Your task to perform on an android device: Clear the shopping cart on newegg. Add logitech g933 to the cart on newegg Image 0: 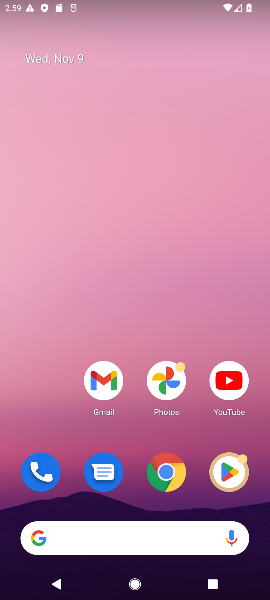
Step 0: click (113, 540)
Your task to perform on an android device: Clear the shopping cart on newegg. Add logitech g933 to the cart on newegg Image 1: 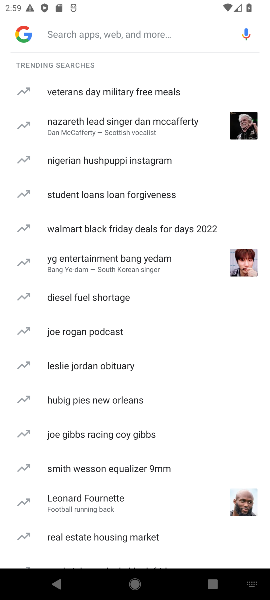
Step 1: type "newegg"
Your task to perform on an android device: Clear the shopping cart on newegg. Add logitech g933 to the cart on newegg Image 2: 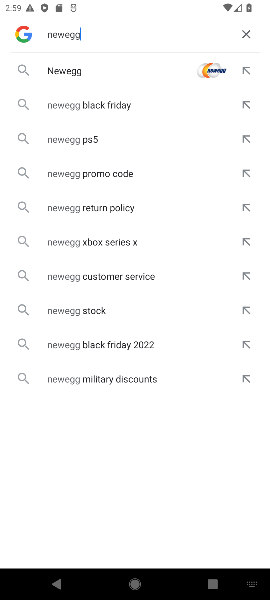
Step 2: click (55, 68)
Your task to perform on an android device: Clear the shopping cart on newegg. Add logitech g933 to the cart on newegg Image 3: 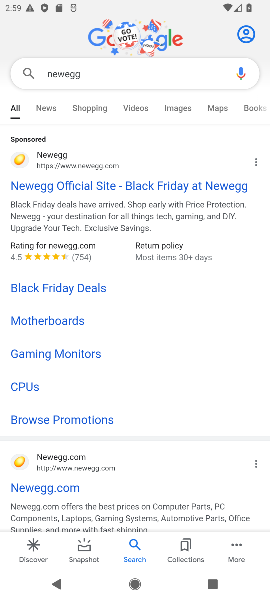
Step 3: click (42, 153)
Your task to perform on an android device: Clear the shopping cart on newegg. Add logitech g933 to the cart on newegg Image 4: 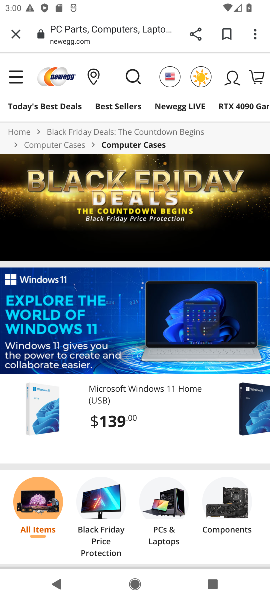
Step 4: click (257, 73)
Your task to perform on an android device: Clear the shopping cart on newegg. Add logitech g933 to the cart on newegg Image 5: 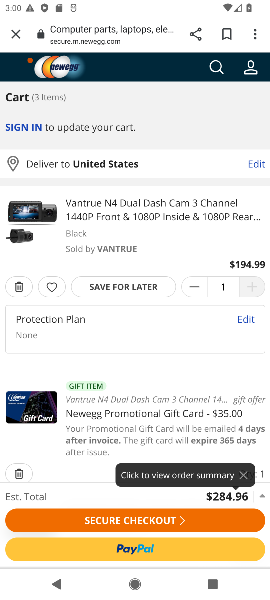
Step 5: click (17, 287)
Your task to perform on an android device: Clear the shopping cart on newegg. Add logitech g933 to the cart on newegg Image 6: 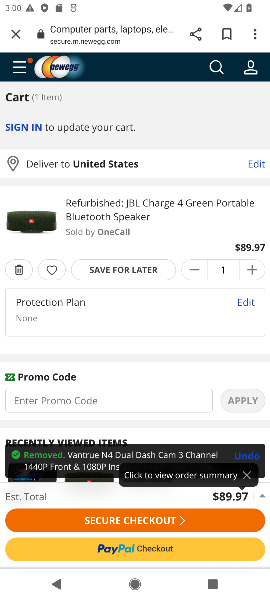
Step 6: click (19, 270)
Your task to perform on an android device: Clear the shopping cart on newegg. Add logitech g933 to the cart on newegg Image 7: 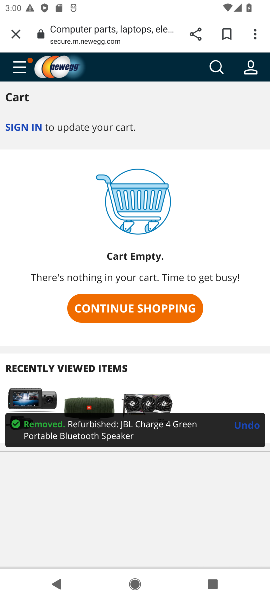
Step 7: click (213, 68)
Your task to perform on an android device: Clear the shopping cart on newegg. Add logitech g933 to the cart on newegg Image 8: 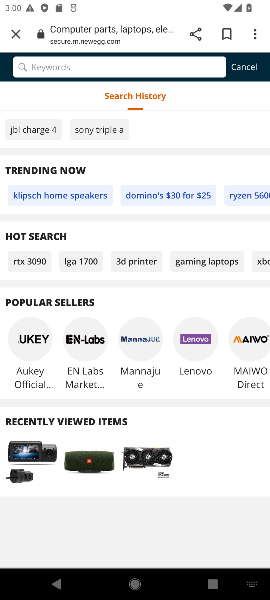
Step 8: type "logitech g933"
Your task to perform on an android device: Clear the shopping cart on newegg. Add logitech g933 to the cart on newegg Image 9: 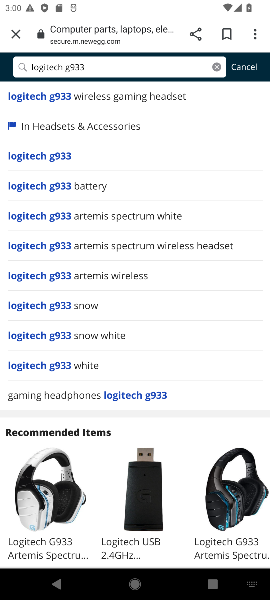
Step 9: click (43, 155)
Your task to perform on an android device: Clear the shopping cart on newegg. Add logitech g933 to the cart on newegg Image 10: 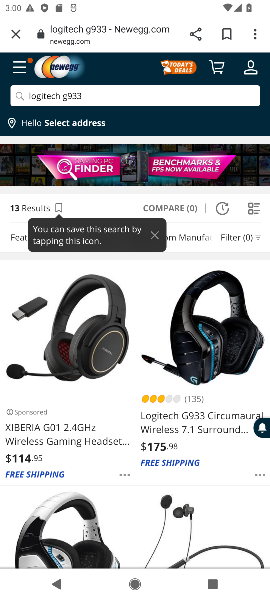
Step 10: click (57, 383)
Your task to perform on an android device: Clear the shopping cart on newegg. Add logitech g933 to the cart on newegg Image 11: 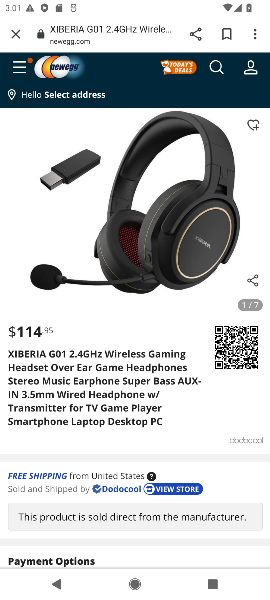
Step 11: click (122, 558)
Your task to perform on an android device: Clear the shopping cart on newegg. Add logitech g933 to the cart on newegg Image 12: 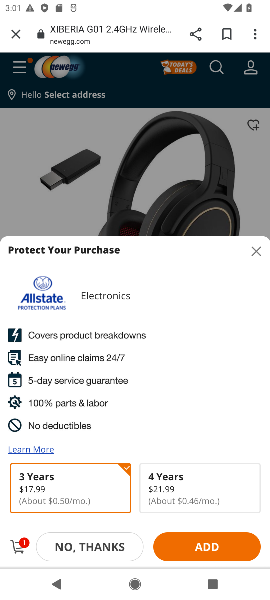
Step 12: click (255, 247)
Your task to perform on an android device: Clear the shopping cart on newegg. Add logitech g933 to the cart on newegg Image 13: 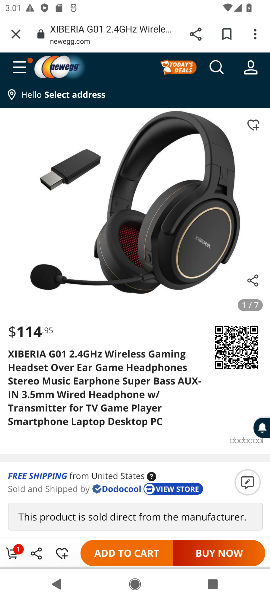
Step 13: click (10, 547)
Your task to perform on an android device: Clear the shopping cart on newegg. Add logitech g933 to the cart on newegg Image 14: 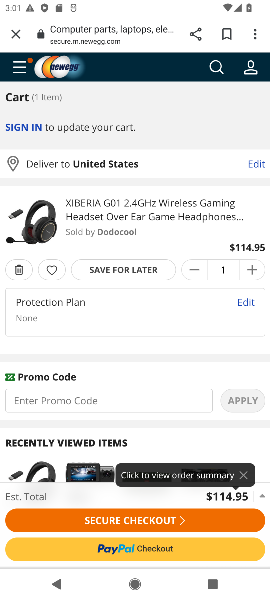
Step 14: task complete